Your task to perform on an android device: Set the phone to "Do not disturb". Image 0: 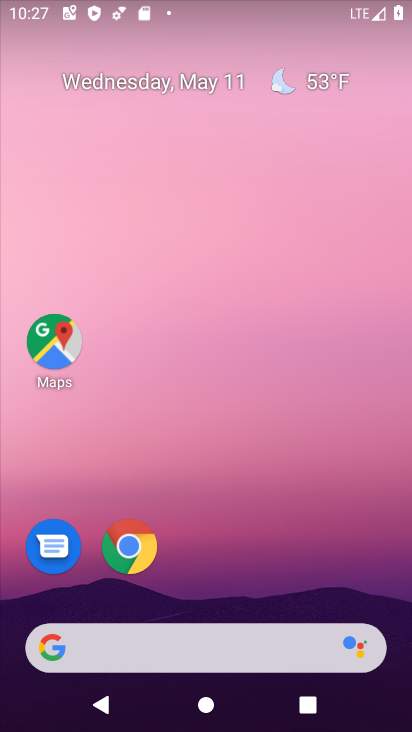
Step 0: click (313, 45)
Your task to perform on an android device: Set the phone to "Do not disturb". Image 1: 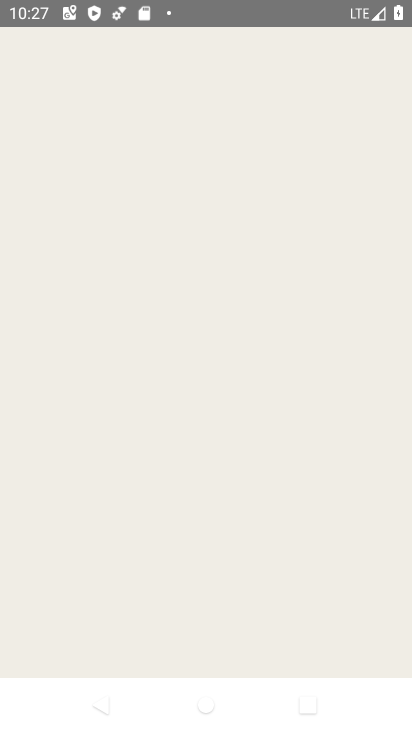
Step 1: press home button
Your task to perform on an android device: Set the phone to "Do not disturb". Image 2: 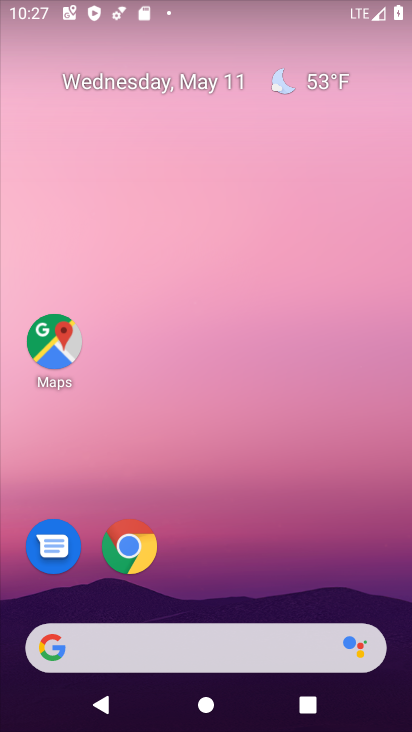
Step 2: drag from (183, 3) to (265, 499)
Your task to perform on an android device: Set the phone to "Do not disturb". Image 3: 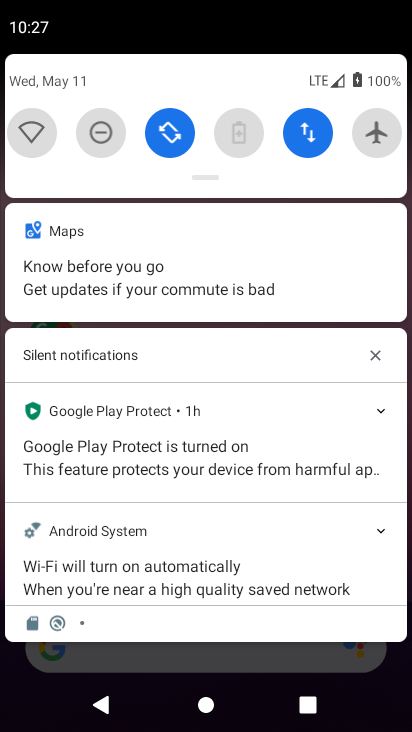
Step 3: click (91, 129)
Your task to perform on an android device: Set the phone to "Do not disturb". Image 4: 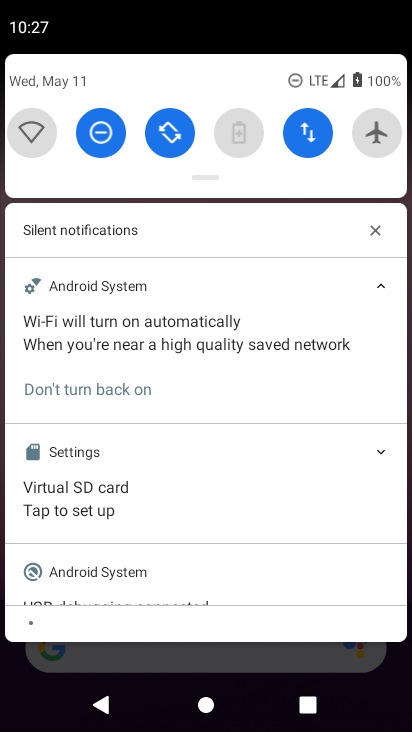
Step 4: task complete